Your task to perform on an android device: Is it going to rain this weekend? Image 0: 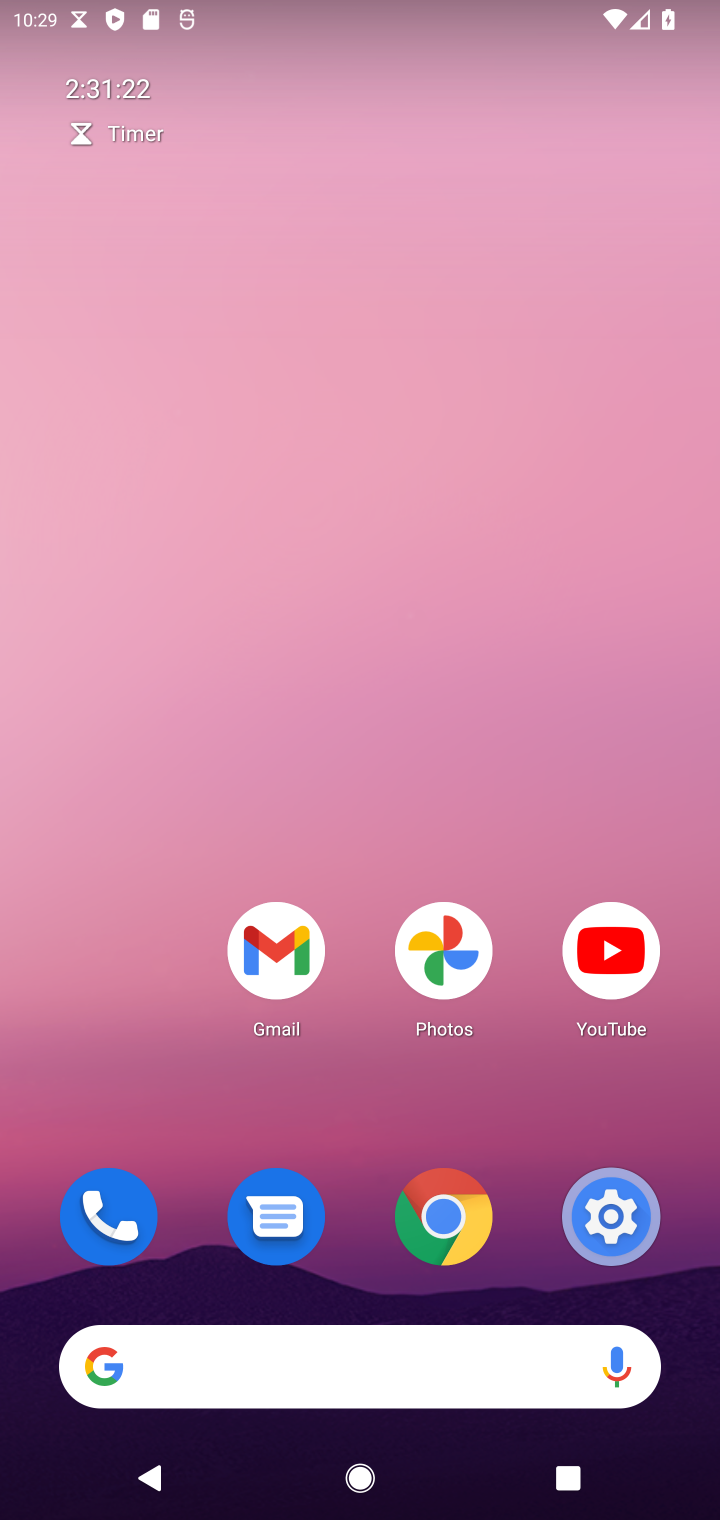
Step 0: click (342, 1360)
Your task to perform on an android device: Is it going to rain this weekend? Image 1: 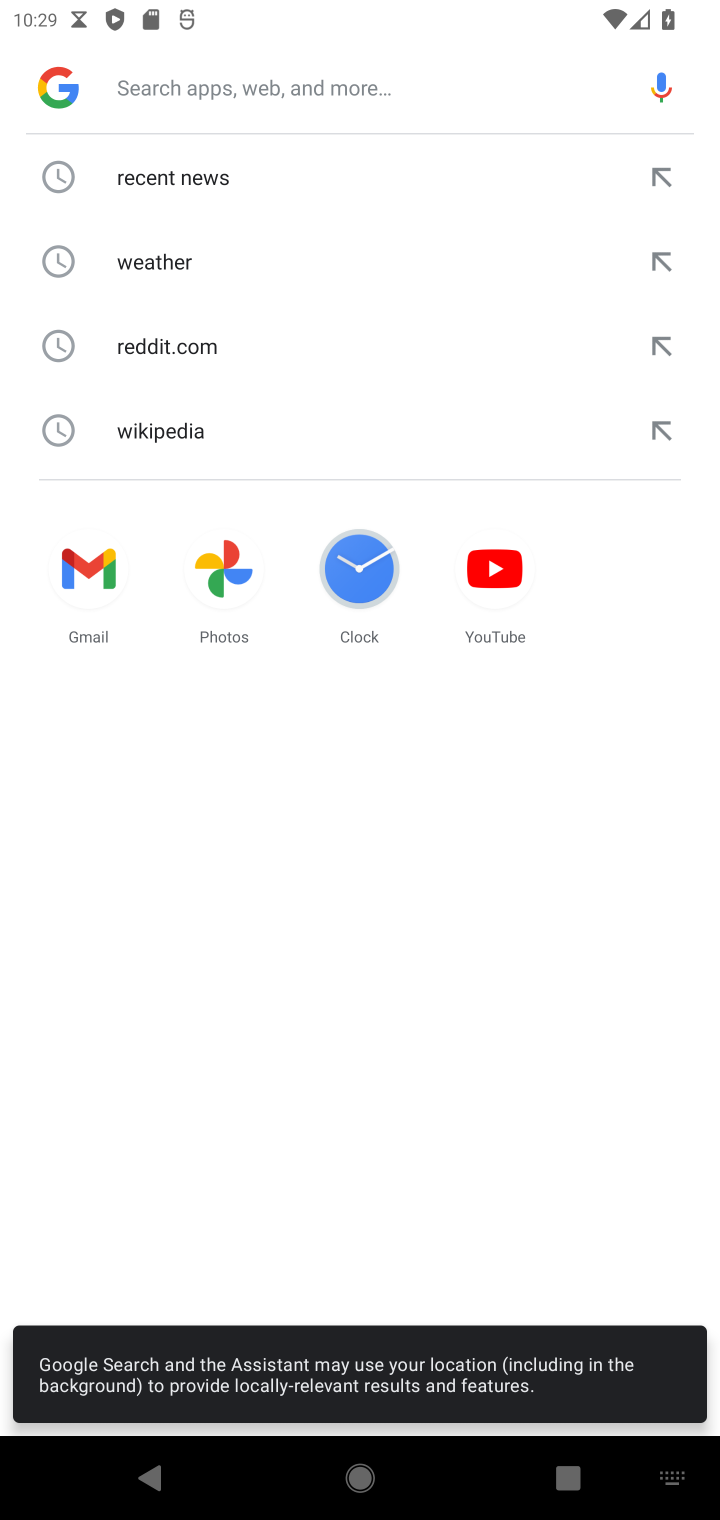
Step 1: click (142, 237)
Your task to perform on an android device: Is it going to rain this weekend? Image 2: 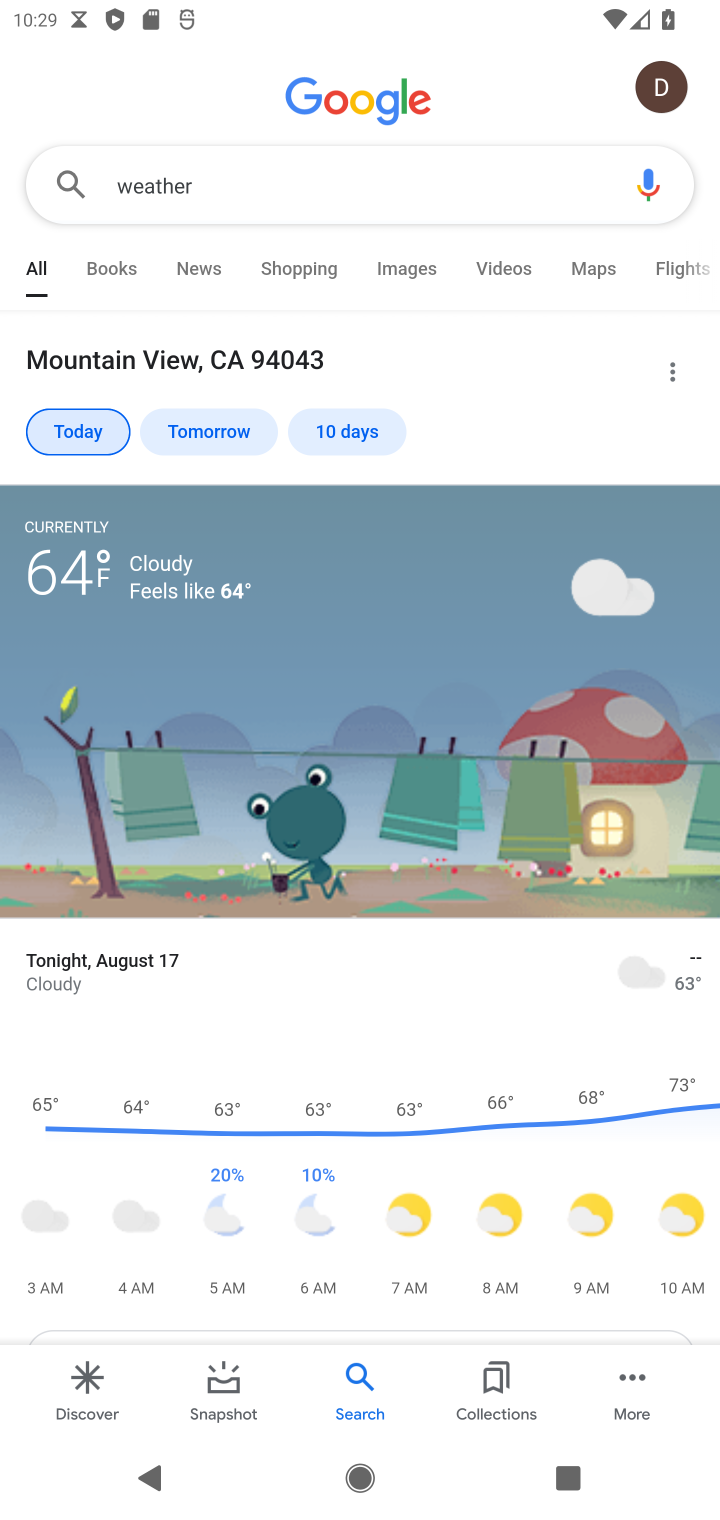
Step 2: click (362, 421)
Your task to perform on an android device: Is it going to rain this weekend? Image 3: 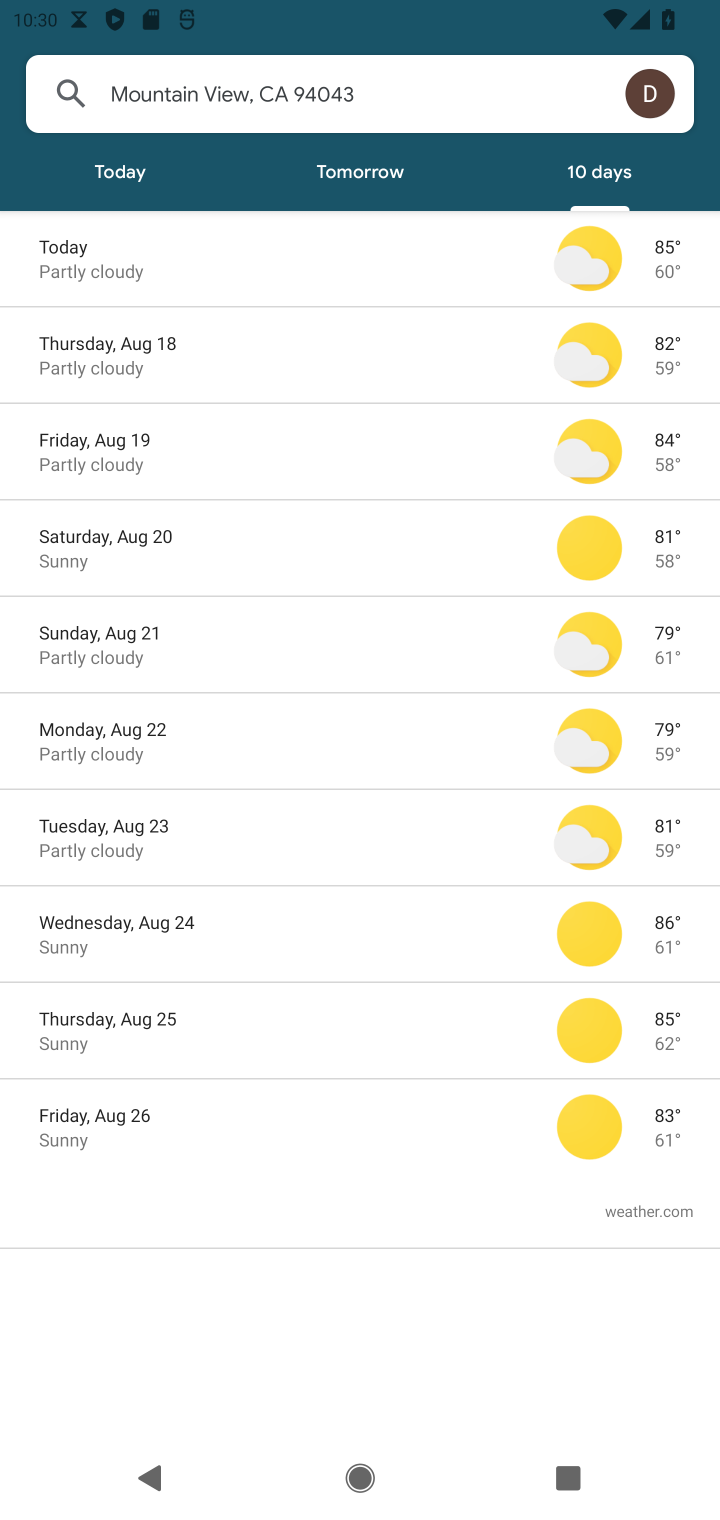
Step 3: task complete